Your task to perform on an android device: toggle show notifications on the lock screen Image 0: 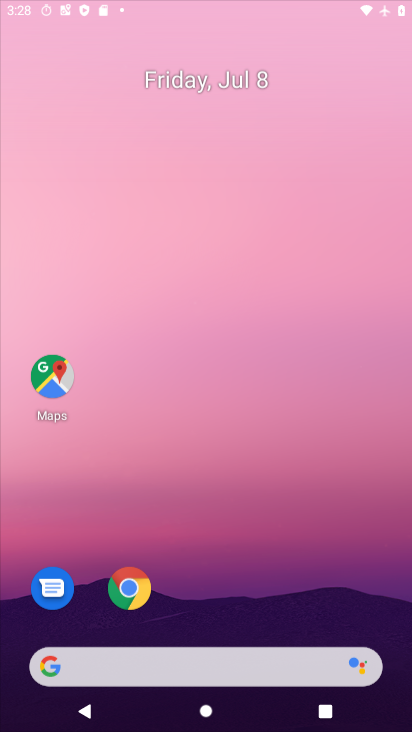
Step 0: press home button
Your task to perform on an android device: toggle show notifications on the lock screen Image 1: 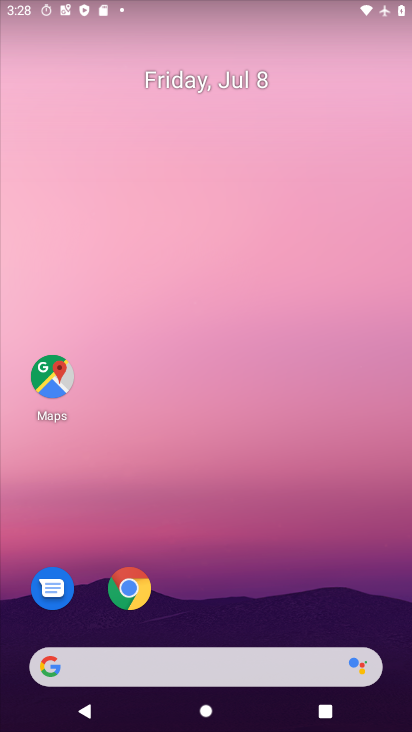
Step 1: drag from (205, 312) to (205, 115)
Your task to perform on an android device: toggle show notifications on the lock screen Image 2: 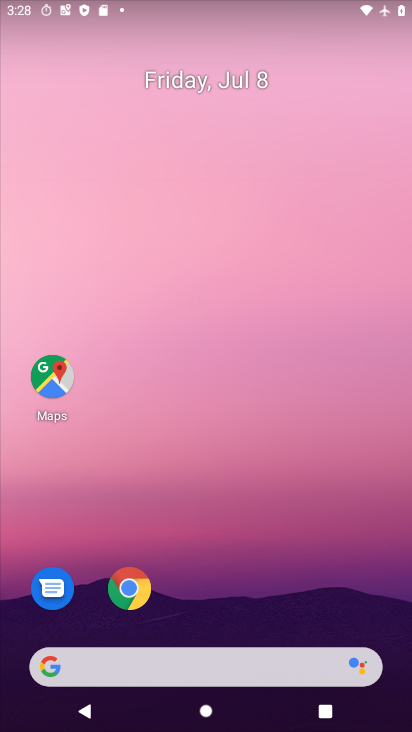
Step 2: drag from (228, 506) to (207, 16)
Your task to perform on an android device: toggle show notifications on the lock screen Image 3: 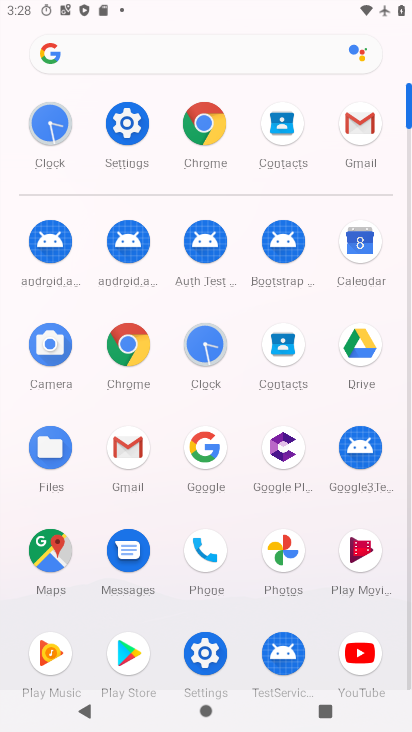
Step 3: click (128, 130)
Your task to perform on an android device: toggle show notifications on the lock screen Image 4: 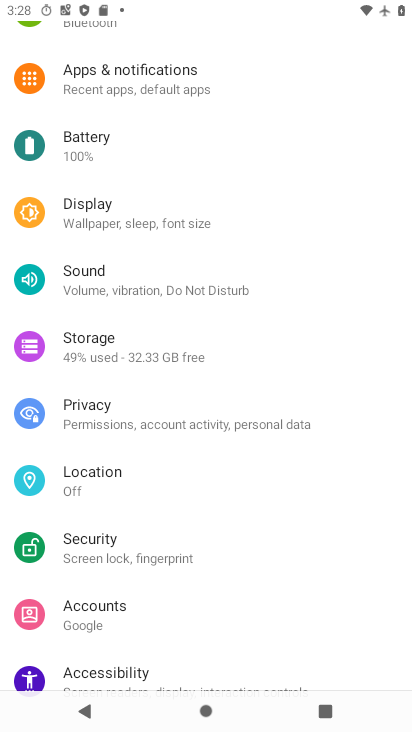
Step 4: click (141, 81)
Your task to perform on an android device: toggle show notifications on the lock screen Image 5: 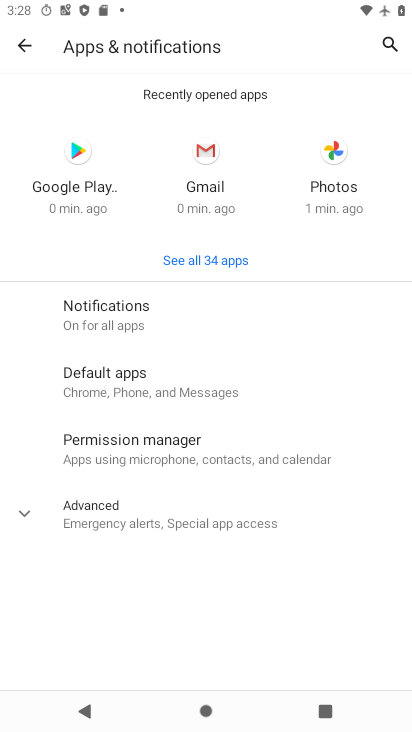
Step 5: click (124, 313)
Your task to perform on an android device: toggle show notifications on the lock screen Image 6: 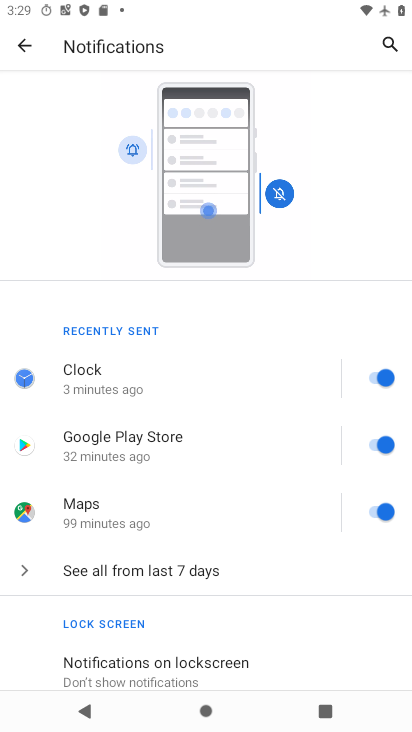
Step 6: click (173, 670)
Your task to perform on an android device: toggle show notifications on the lock screen Image 7: 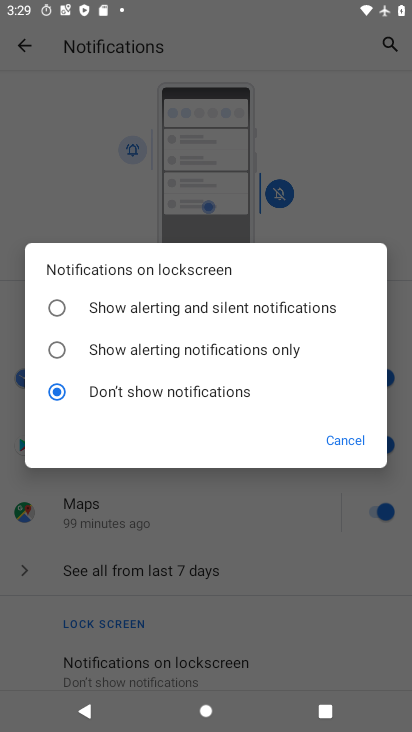
Step 7: click (54, 310)
Your task to perform on an android device: toggle show notifications on the lock screen Image 8: 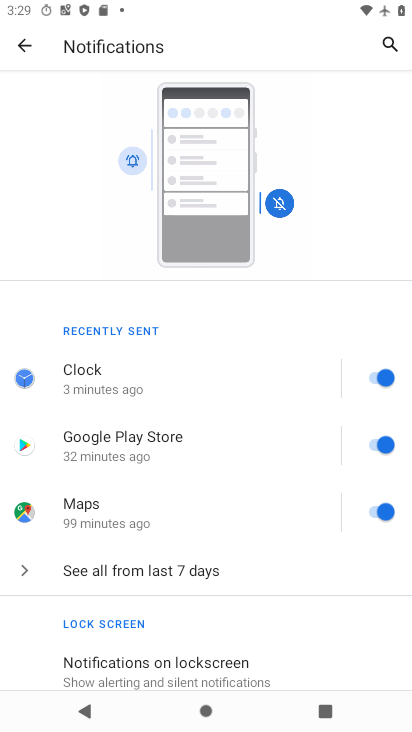
Step 8: task complete